Your task to perform on an android device: Open location settings Image 0: 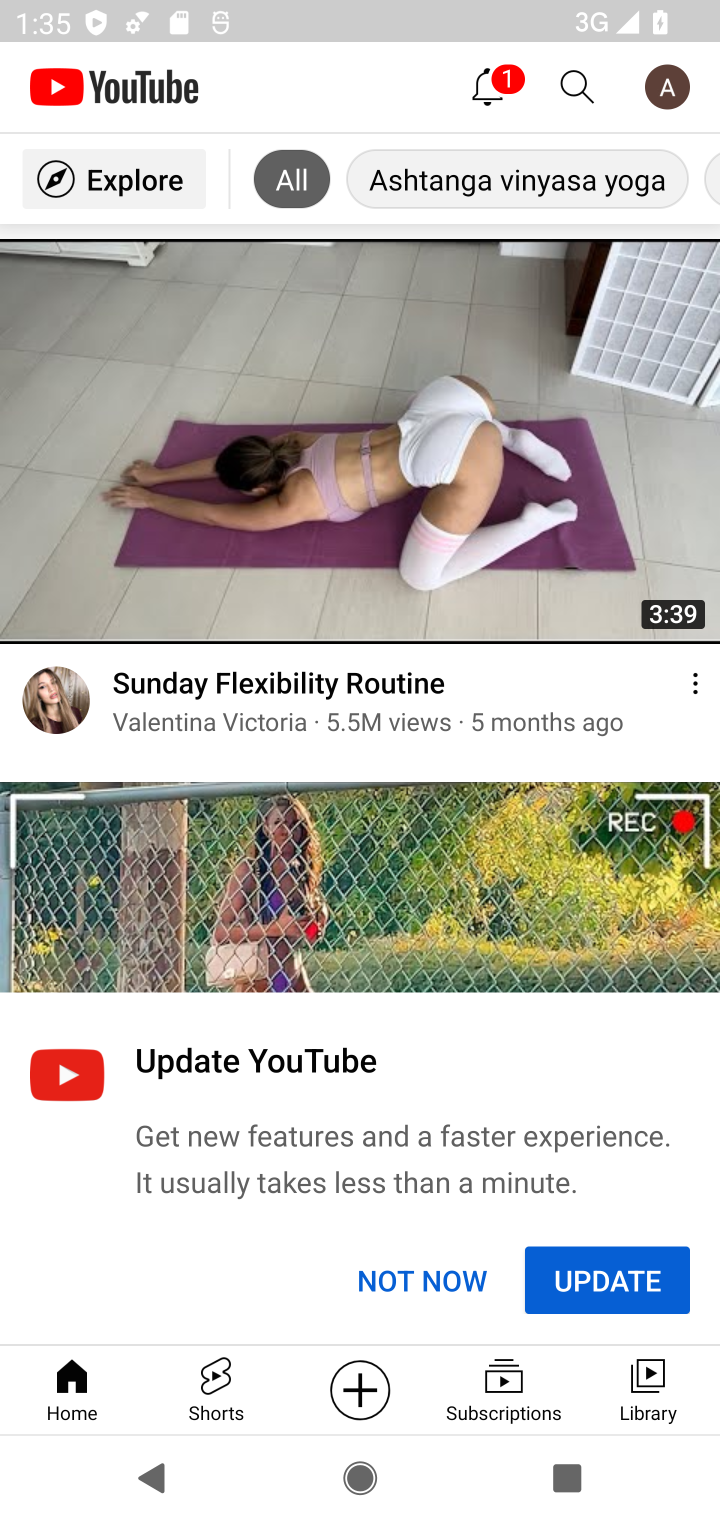
Step 0: press home button
Your task to perform on an android device: Open location settings Image 1: 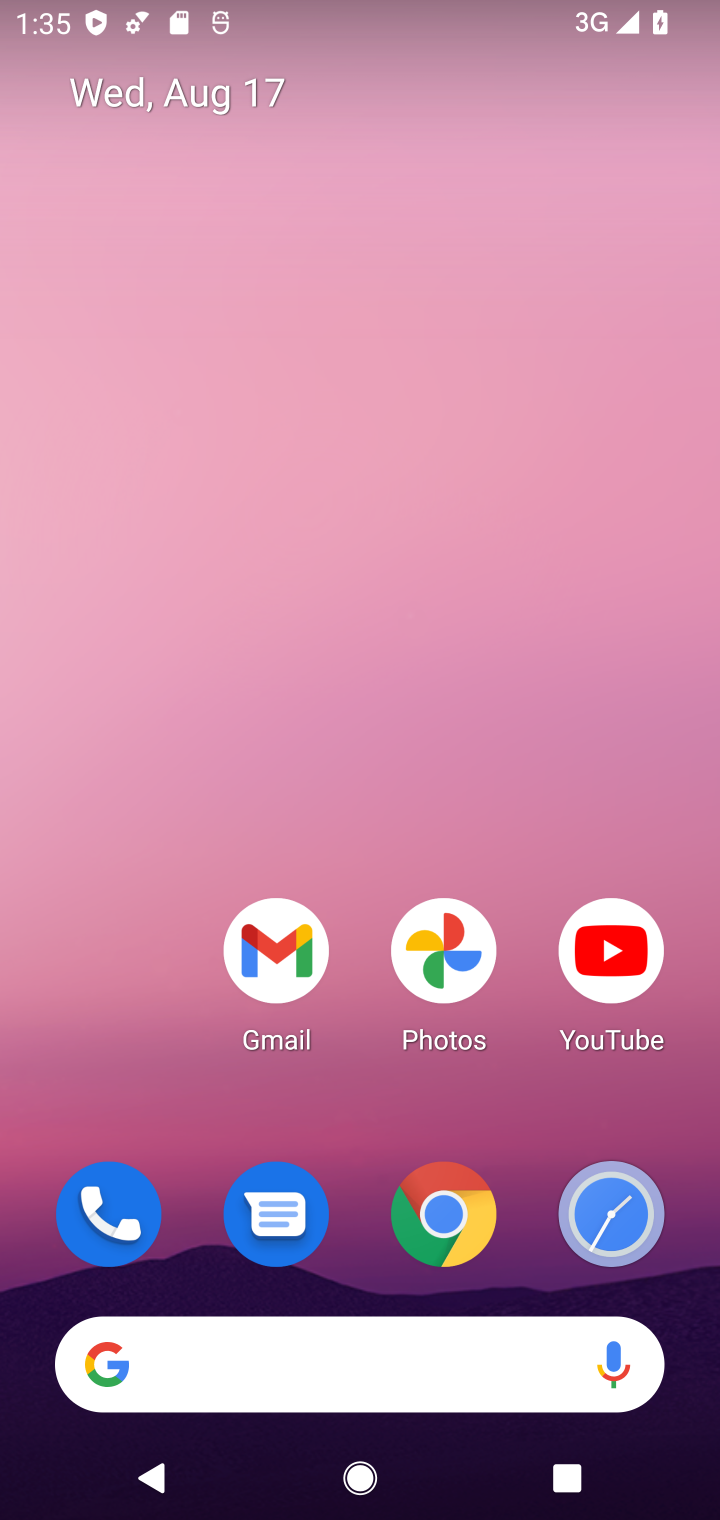
Step 1: drag from (358, 1274) to (376, 85)
Your task to perform on an android device: Open location settings Image 2: 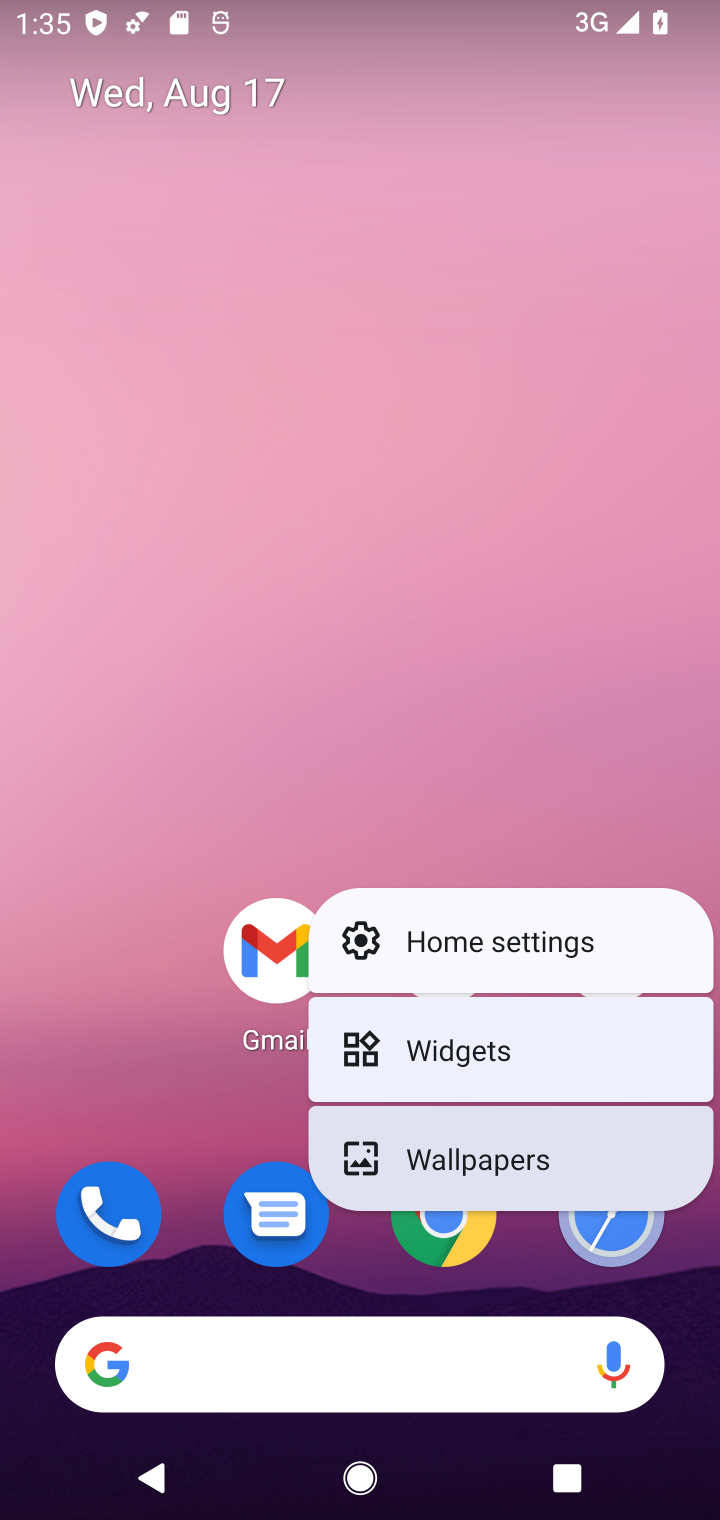
Step 2: click (354, 478)
Your task to perform on an android device: Open location settings Image 3: 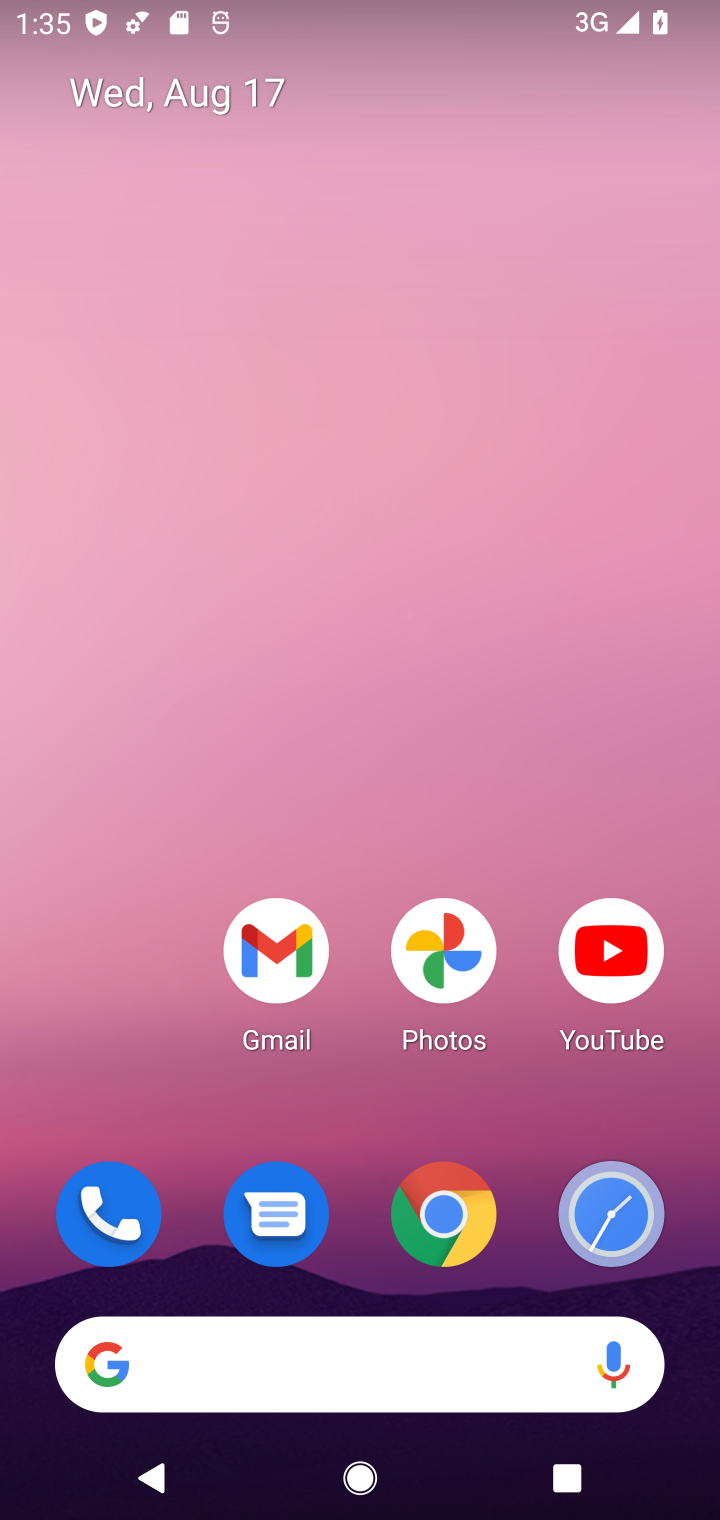
Step 3: drag from (355, 1269) to (229, 173)
Your task to perform on an android device: Open location settings Image 4: 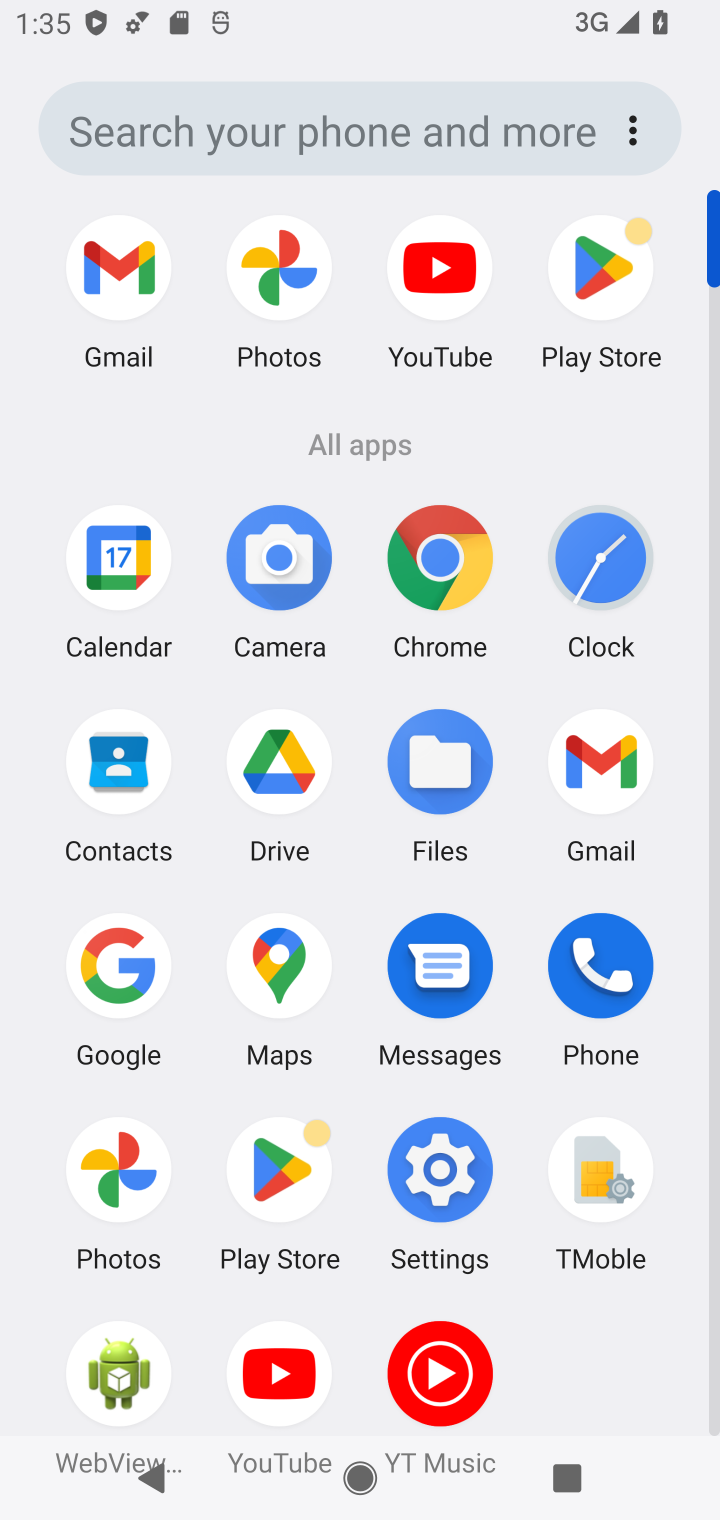
Step 4: click (443, 1169)
Your task to perform on an android device: Open location settings Image 5: 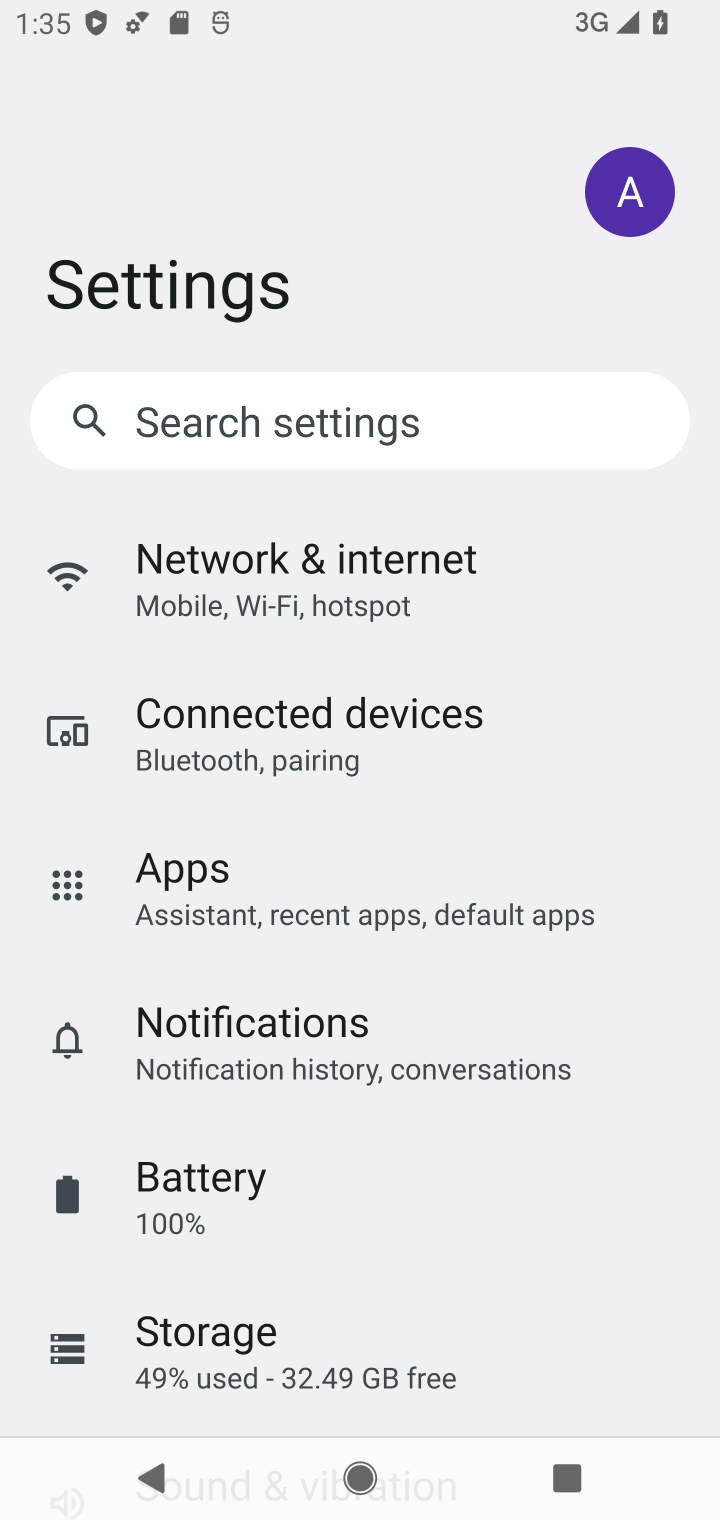
Step 5: drag from (403, 1297) to (410, 285)
Your task to perform on an android device: Open location settings Image 6: 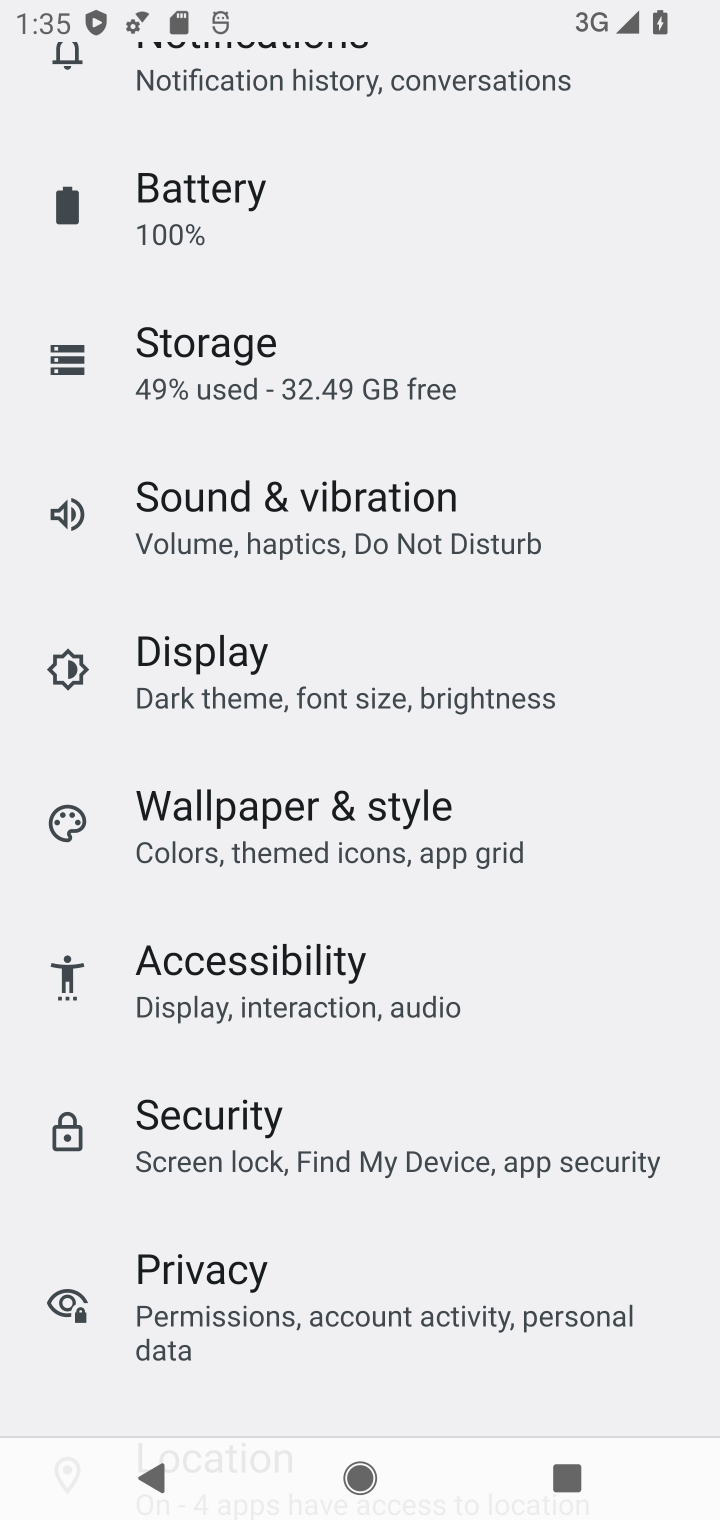
Step 6: drag from (361, 1357) to (335, 518)
Your task to perform on an android device: Open location settings Image 7: 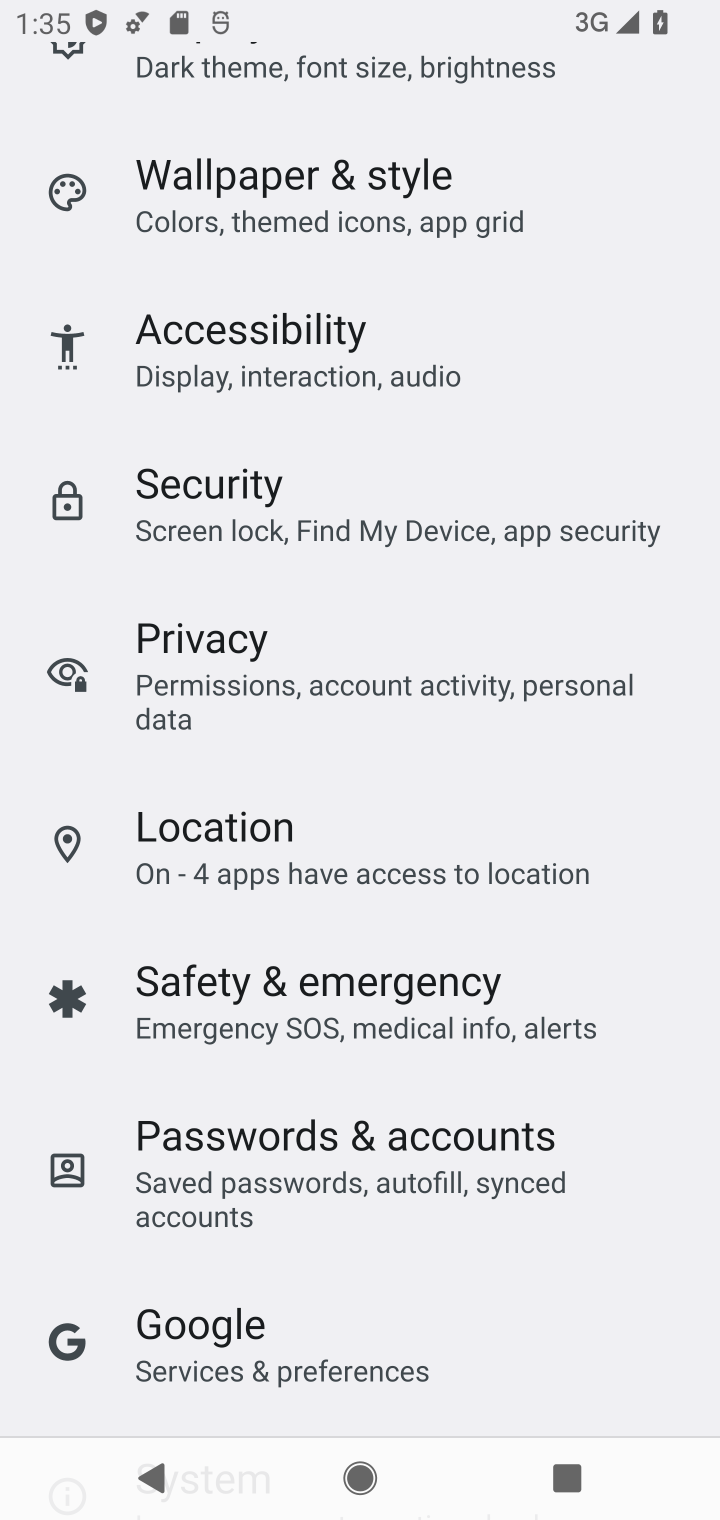
Step 7: click (234, 830)
Your task to perform on an android device: Open location settings Image 8: 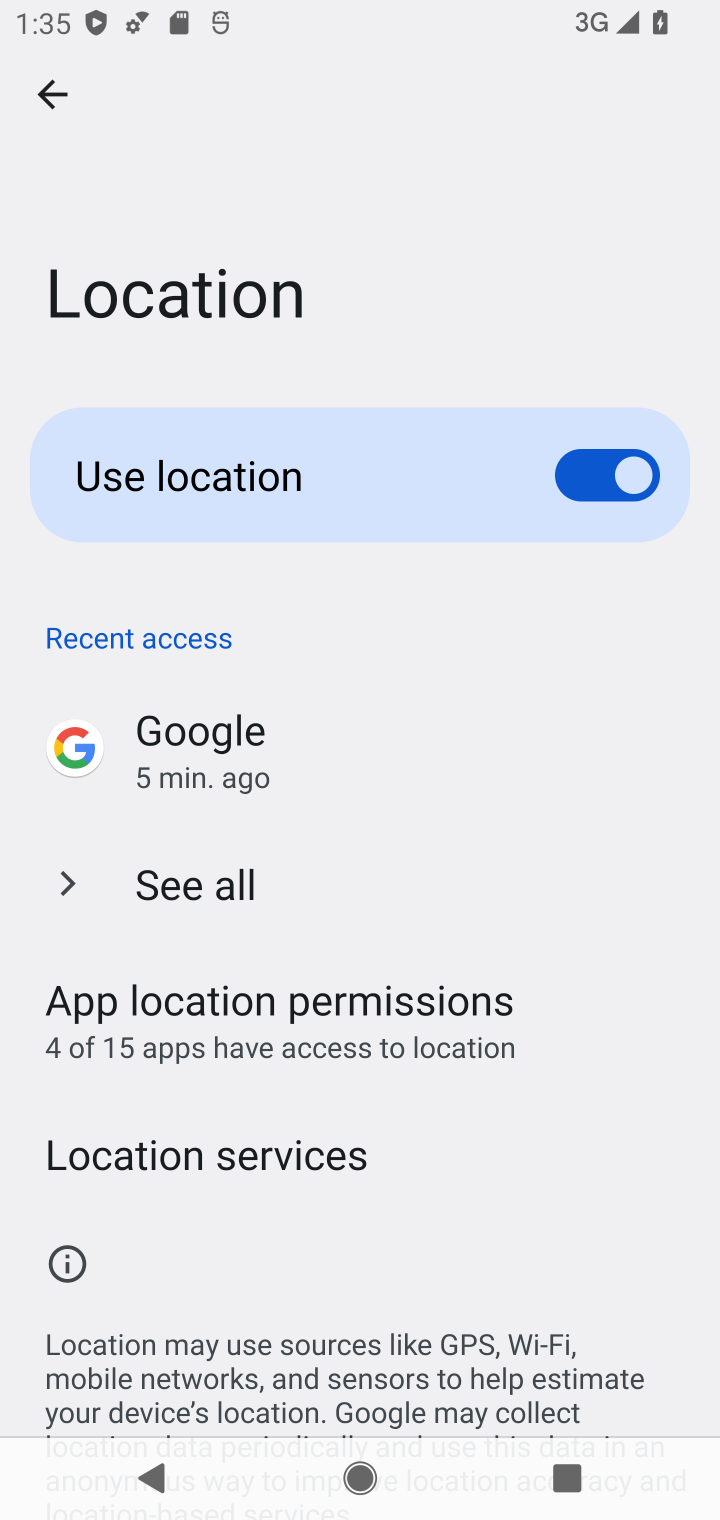
Step 8: task complete